Your task to perform on an android device: change alarm snooze length Image 0: 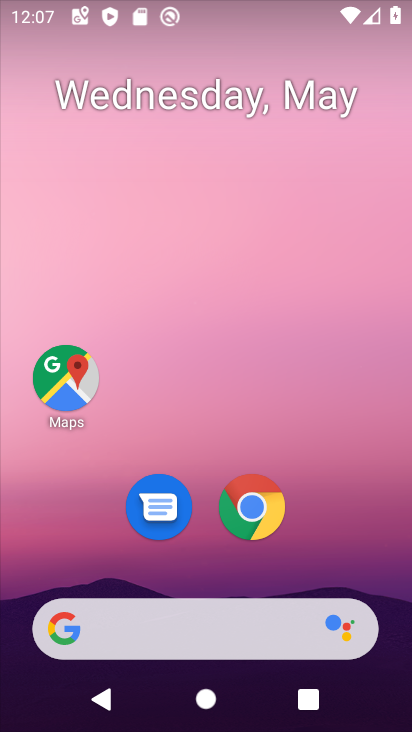
Step 0: drag from (334, 529) to (335, 199)
Your task to perform on an android device: change alarm snooze length Image 1: 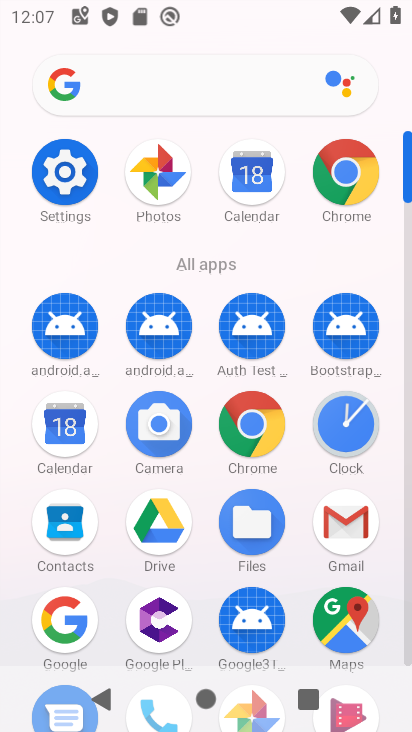
Step 1: click (330, 415)
Your task to perform on an android device: change alarm snooze length Image 2: 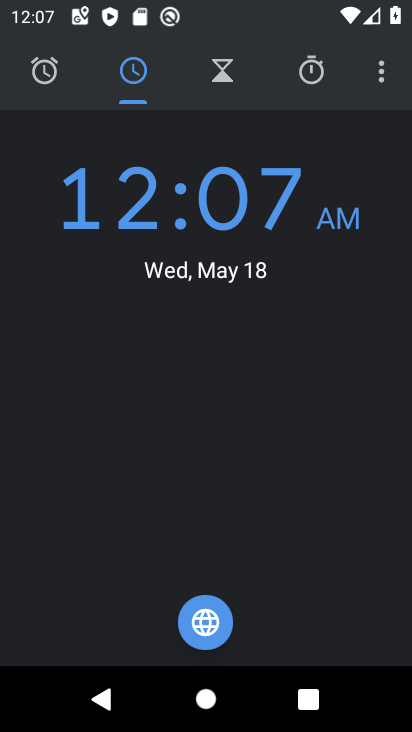
Step 2: click (382, 74)
Your task to perform on an android device: change alarm snooze length Image 3: 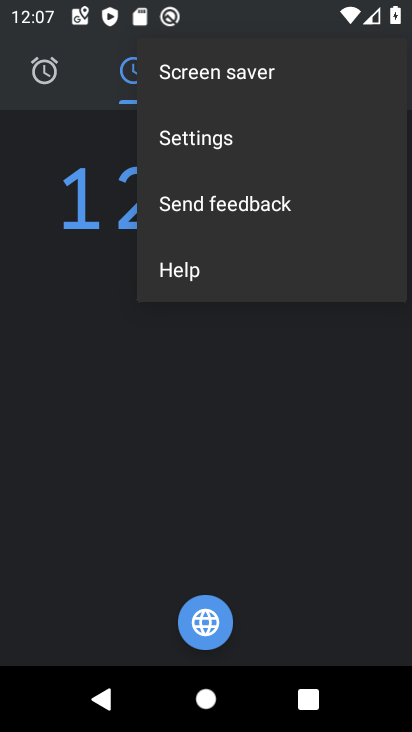
Step 3: click (233, 146)
Your task to perform on an android device: change alarm snooze length Image 4: 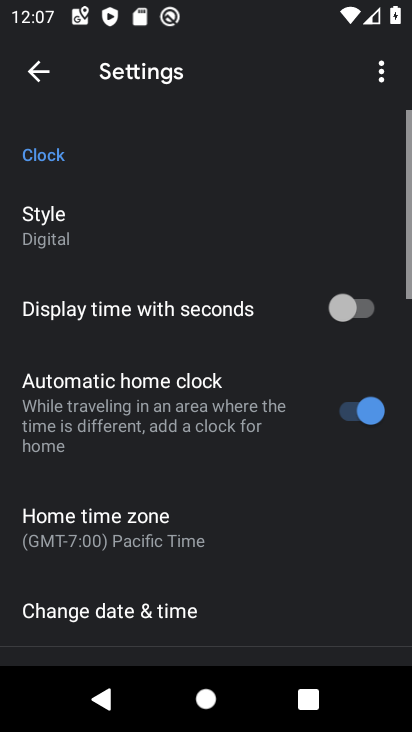
Step 4: drag from (248, 497) to (238, 180)
Your task to perform on an android device: change alarm snooze length Image 5: 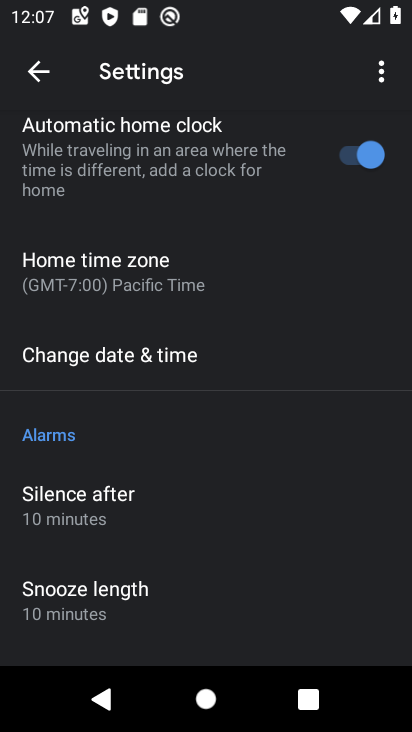
Step 5: click (149, 598)
Your task to perform on an android device: change alarm snooze length Image 6: 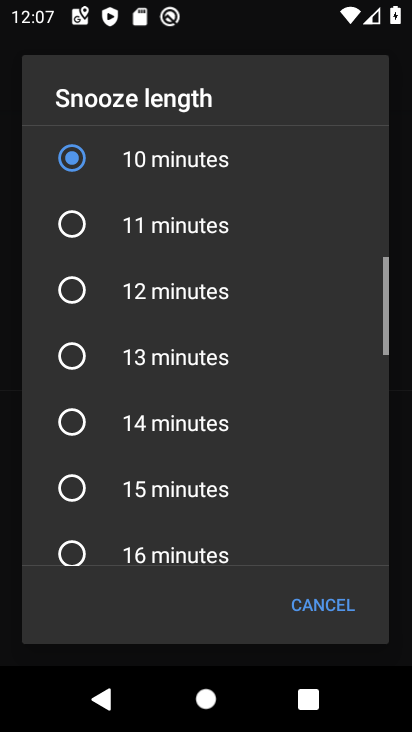
Step 6: click (166, 506)
Your task to perform on an android device: change alarm snooze length Image 7: 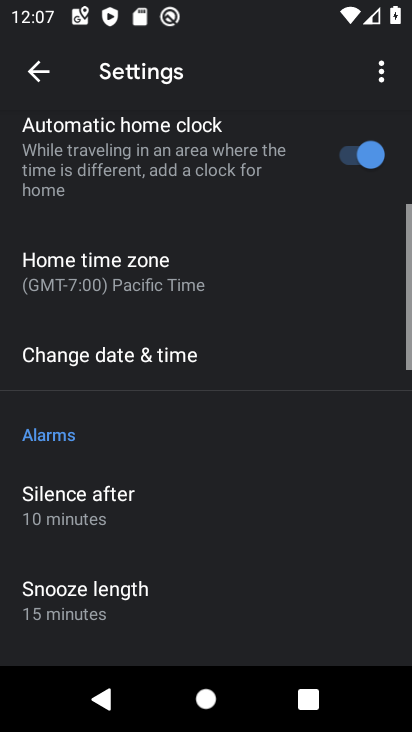
Step 7: task complete